Your task to perform on an android device: toggle data saver in the chrome app Image 0: 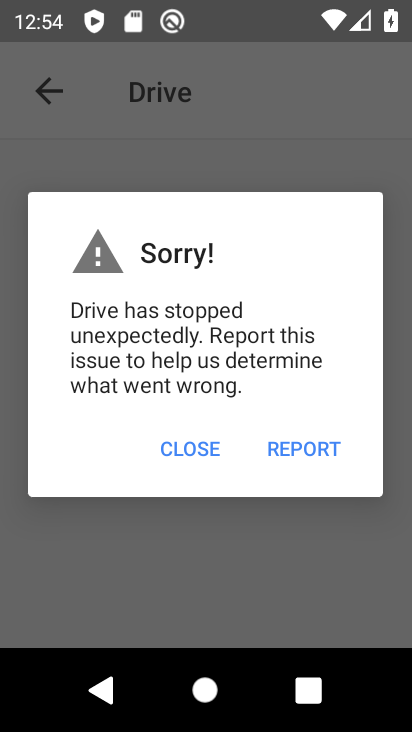
Step 0: press home button
Your task to perform on an android device: toggle data saver in the chrome app Image 1: 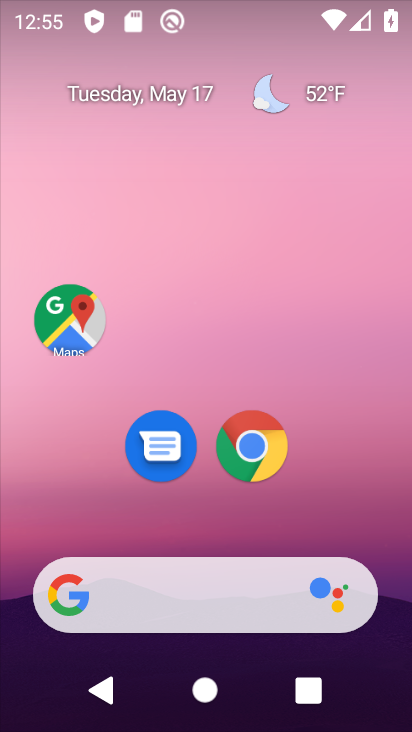
Step 1: click (271, 457)
Your task to perform on an android device: toggle data saver in the chrome app Image 2: 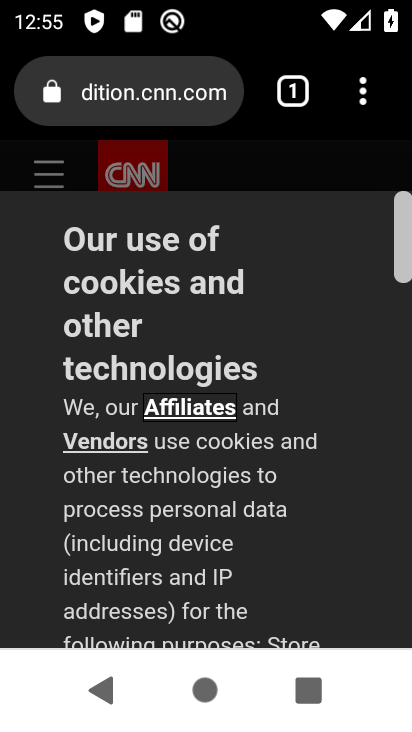
Step 2: click (370, 105)
Your task to perform on an android device: toggle data saver in the chrome app Image 3: 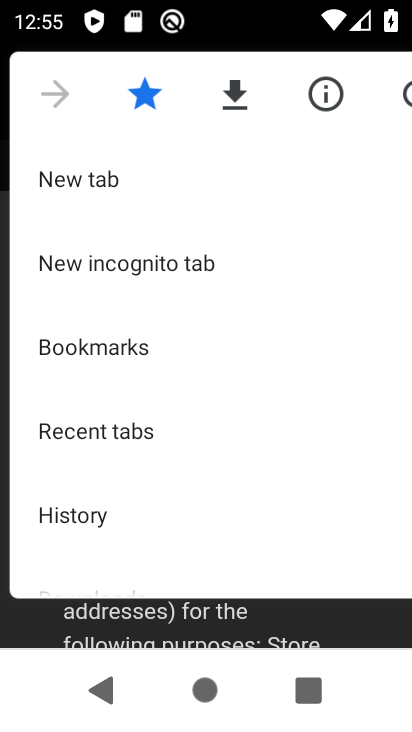
Step 3: drag from (217, 475) to (219, 264)
Your task to perform on an android device: toggle data saver in the chrome app Image 4: 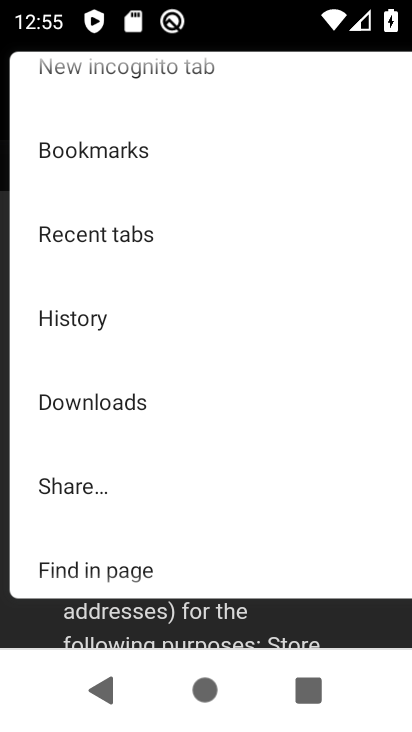
Step 4: drag from (195, 497) to (208, 244)
Your task to perform on an android device: toggle data saver in the chrome app Image 5: 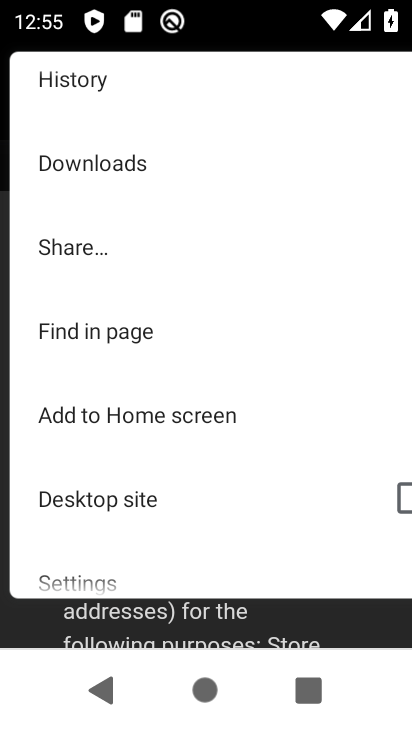
Step 5: drag from (152, 555) to (135, 425)
Your task to perform on an android device: toggle data saver in the chrome app Image 6: 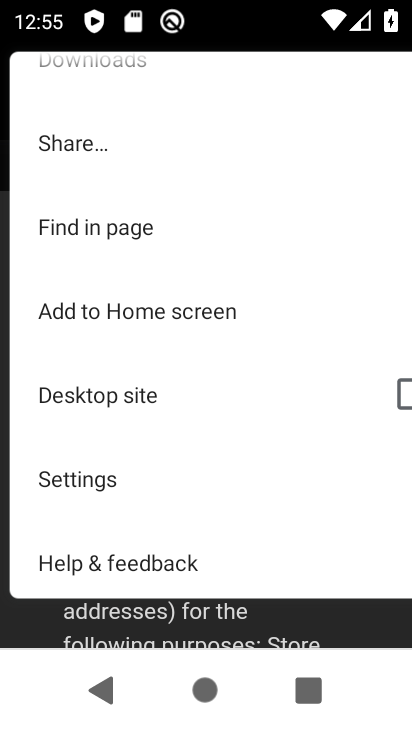
Step 6: click (78, 470)
Your task to perform on an android device: toggle data saver in the chrome app Image 7: 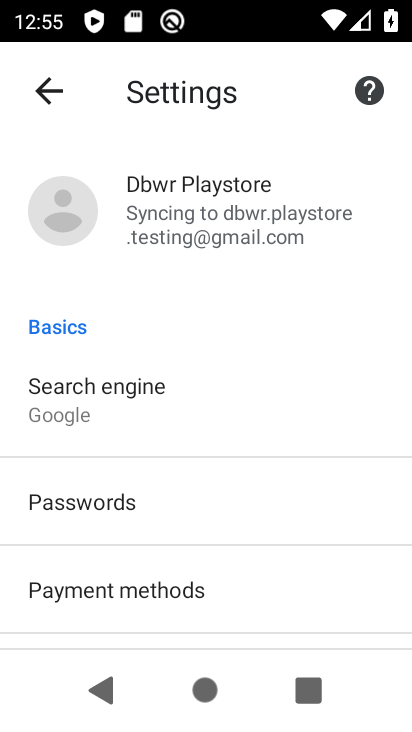
Step 7: drag from (250, 501) to (222, 220)
Your task to perform on an android device: toggle data saver in the chrome app Image 8: 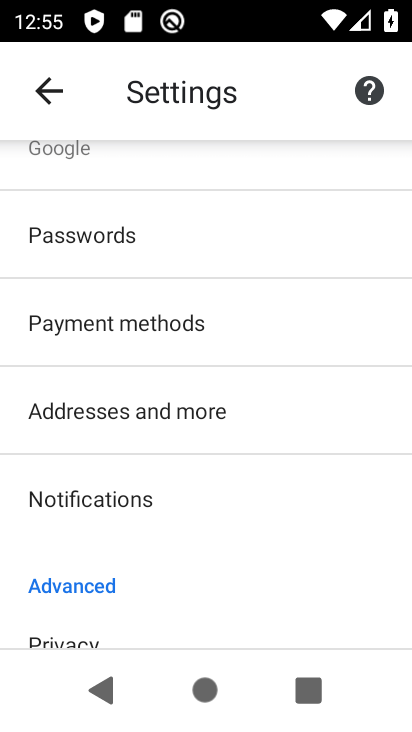
Step 8: drag from (228, 557) to (199, 226)
Your task to perform on an android device: toggle data saver in the chrome app Image 9: 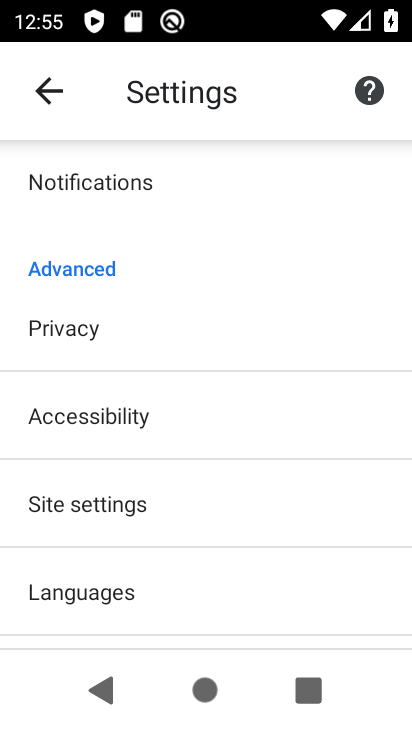
Step 9: drag from (259, 559) to (223, 303)
Your task to perform on an android device: toggle data saver in the chrome app Image 10: 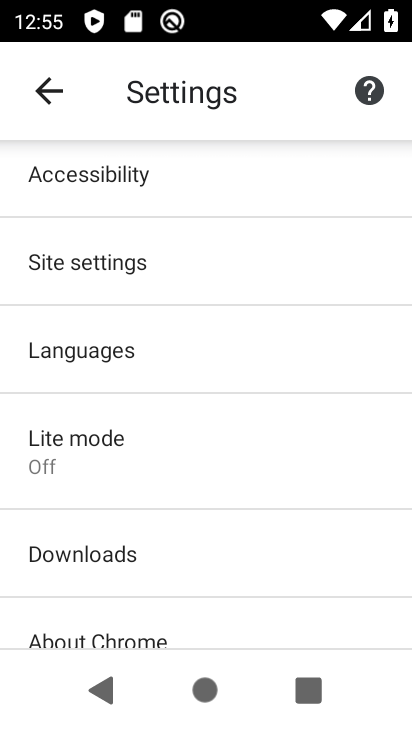
Step 10: click (160, 435)
Your task to perform on an android device: toggle data saver in the chrome app Image 11: 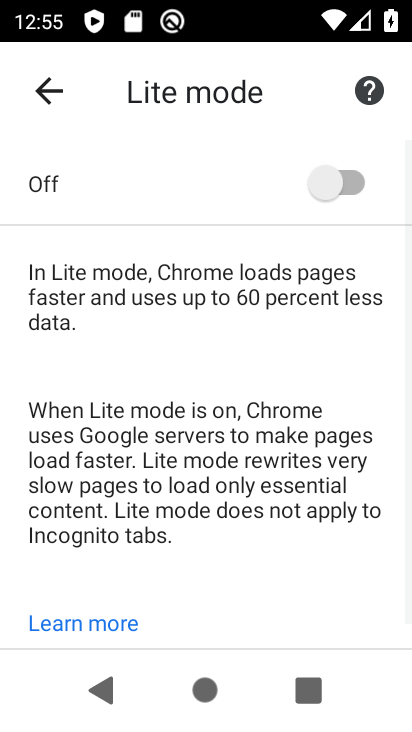
Step 11: click (346, 182)
Your task to perform on an android device: toggle data saver in the chrome app Image 12: 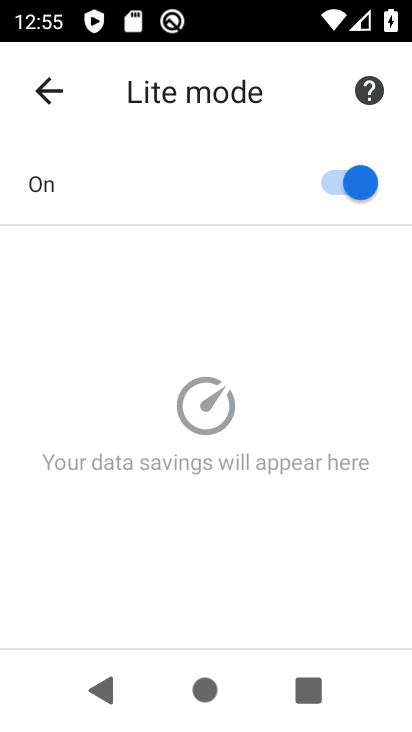
Step 12: task complete